Your task to perform on an android device: Turn on the flashlight Image 0: 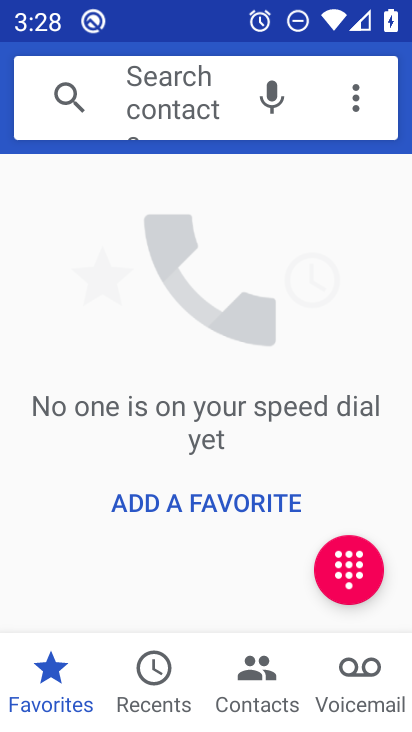
Step 0: press home button
Your task to perform on an android device: Turn on the flashlight Image 1: 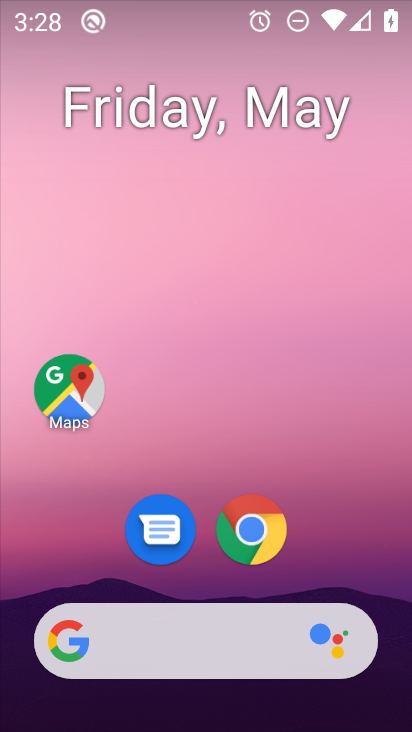
Step 1: drag from (393, 611) to (393, 203)
Your task to perform on an android device: Turn on the flashlight Image 2: 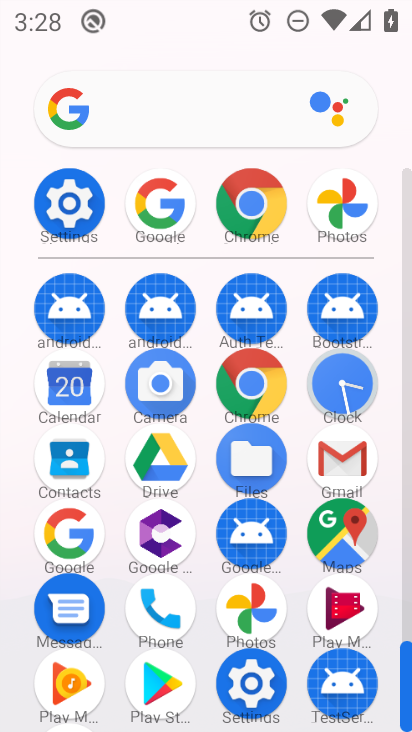
Step 2: click (68, 203)
Your task to perform on an android device: Turn on the flashlight Image 3: 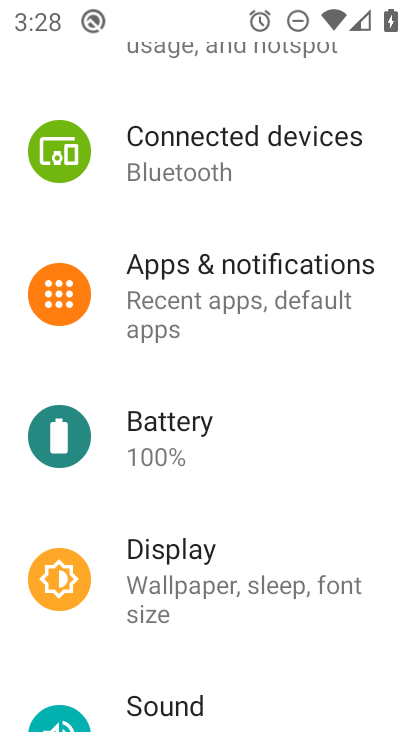
Step 3: click (175, 550)
Your task to perform on an android device: Turn on the flashlight Image 4: 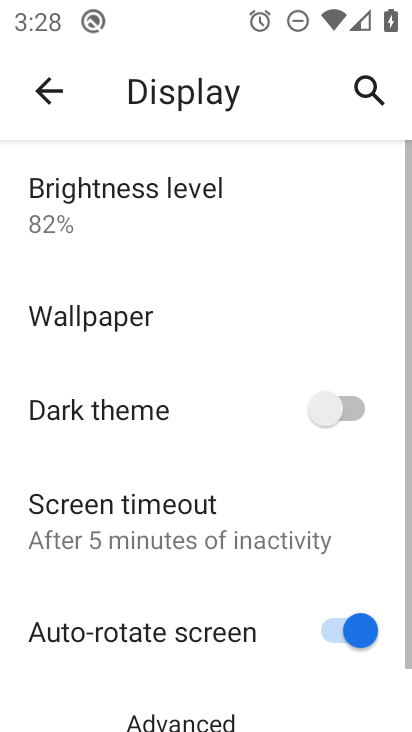
Step 4: task complete